Your task to perform on an android device: set the timer Image 0: 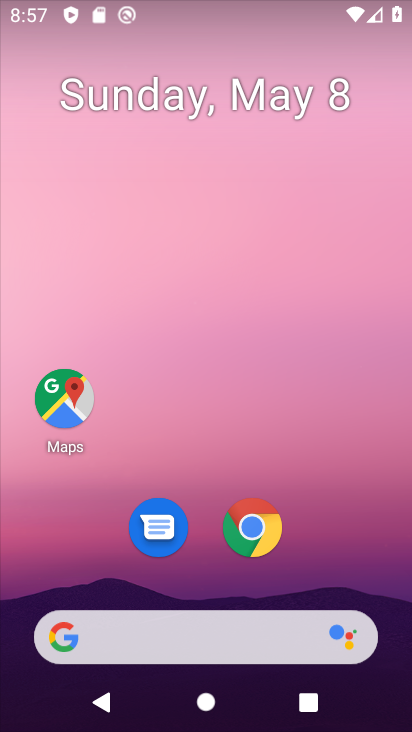
Step 0: drag from (214, 486) to (204, 56)
Your task to perform on an android device: set the timer Image 1: 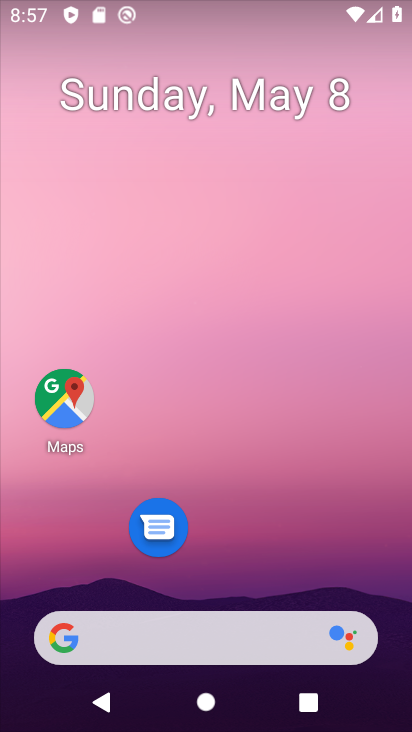
Step 1: drag from (271, 446) to (224, 15)
Your task to perform on an android device: set the timer Image 2: 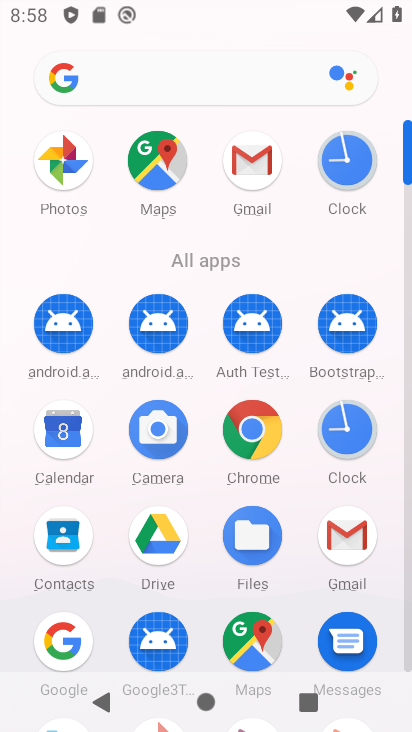
Step 2: click (346, 162)
Your task to perform on an android device: set the timer Image 3: 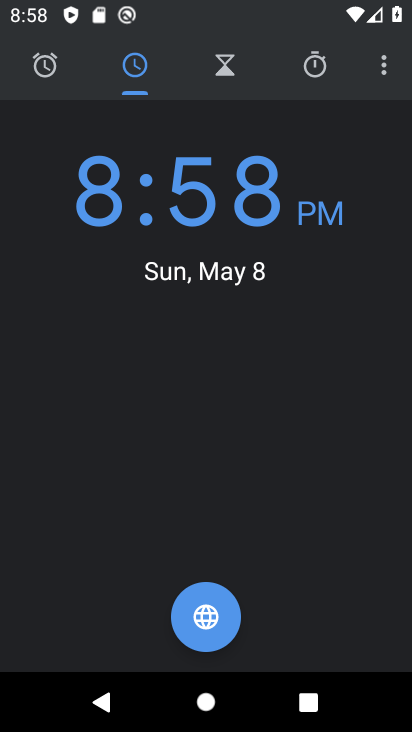
Step 3: click (230, 64)
Your task to perform on an android device: set the timer Image 4: 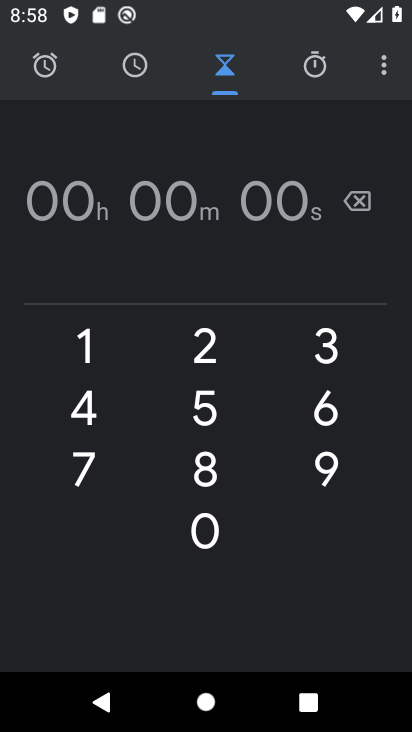
Step 4: type "123"
Your task to perform on an android device: set the timer Image 5: 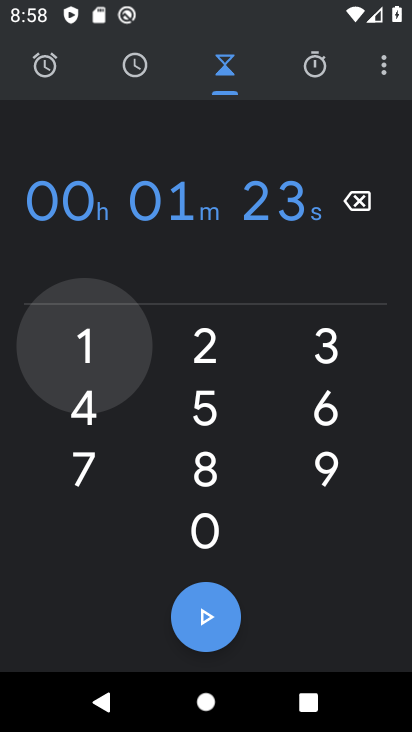
Step 5: click (202, 616)
Your task to perform on an android device: set the timer Image 6: 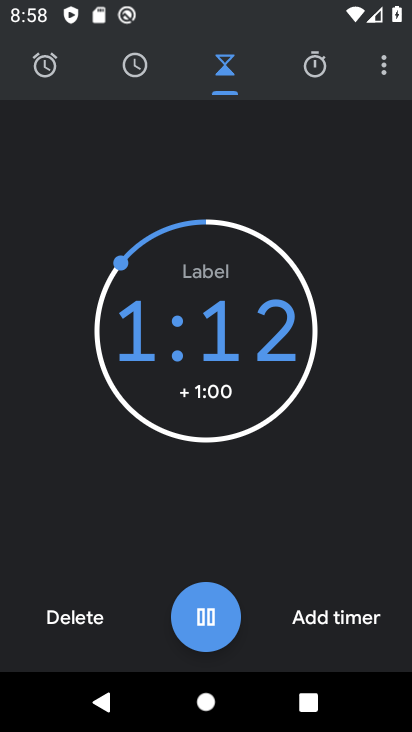
Step 6: click (201, 621)
Your task to perform on an android device: set the timer Image 7: 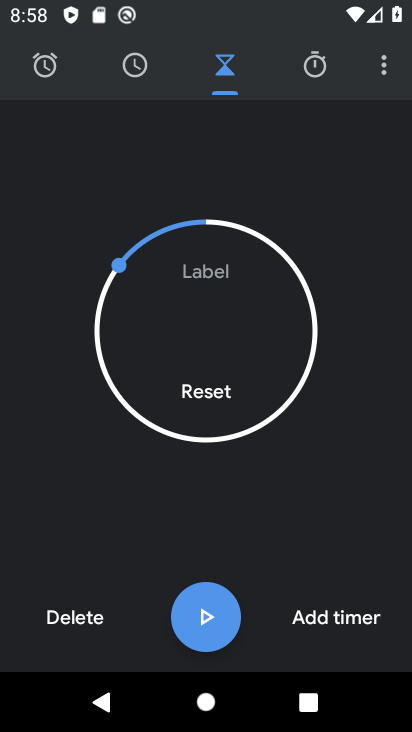
Step 7: task complete